Your task to perform on an android device: change notification settings in the gmail app Image 0: 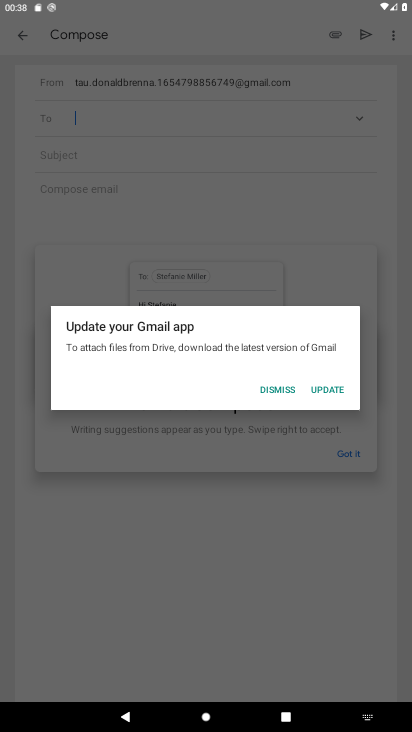
Step 0: press home button
Your task to perform on an android device: change notification settings in the gmail app Image 1: 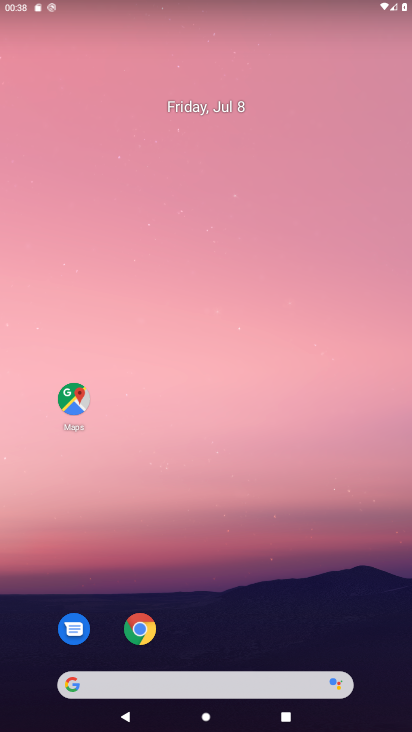
Step 1: drag from (246, 596) to (252, 166)
Your task to perform on an android device: change notification settings in the gmail app Image 2: 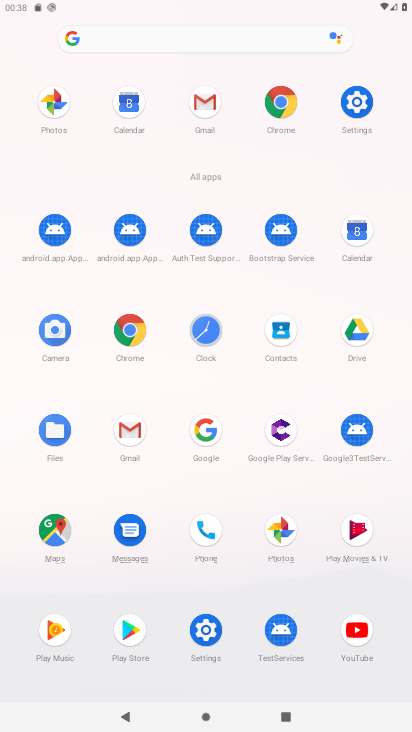
Step 2: click (202, 100)
Your task to perform on an android device: change notification settings in the gmail app Image 3: 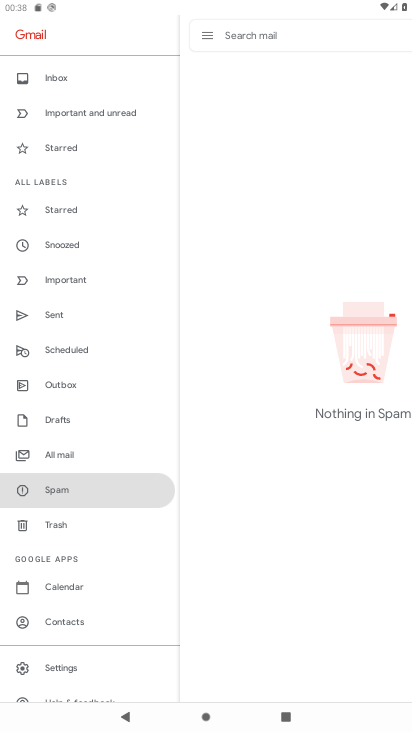
Step 3: click (80, 657)
Your task to perform on an android device: change notification settings in the gmail app Image 4: 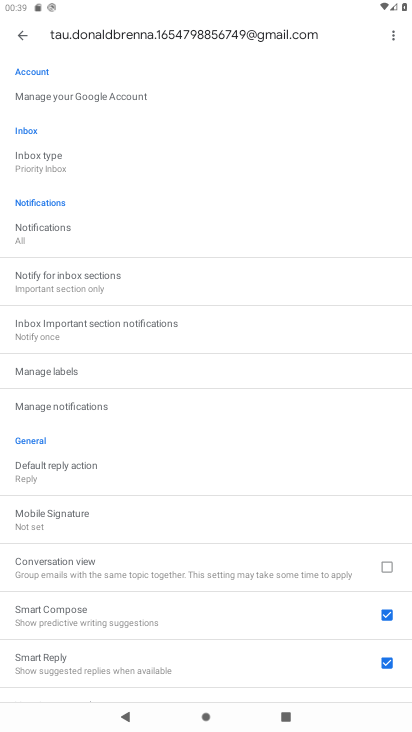
Step 4: click (64, 403)
Your task to perform on an android device: change notification settings in the gmail app Image 5: 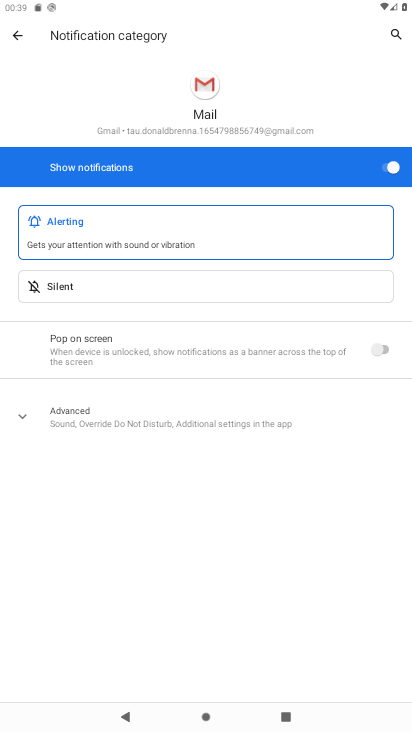
Step 5: click (399, 160)
Your task to perform on an android device: change notification settings in the gmail app Image 6: 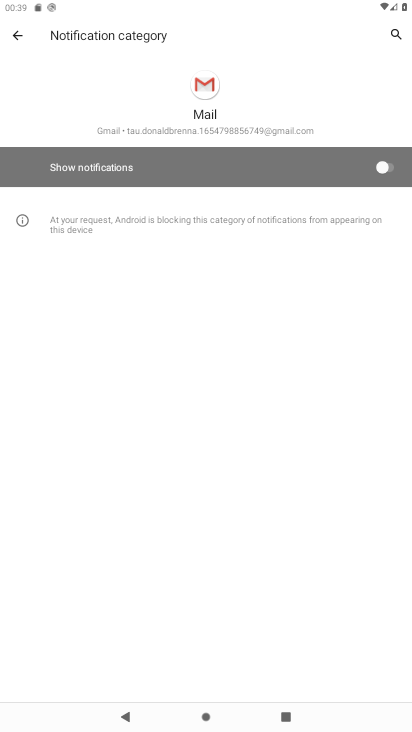
Step 6: task complete